Your task to perform on an android device: Open accessibility settings Image 0: 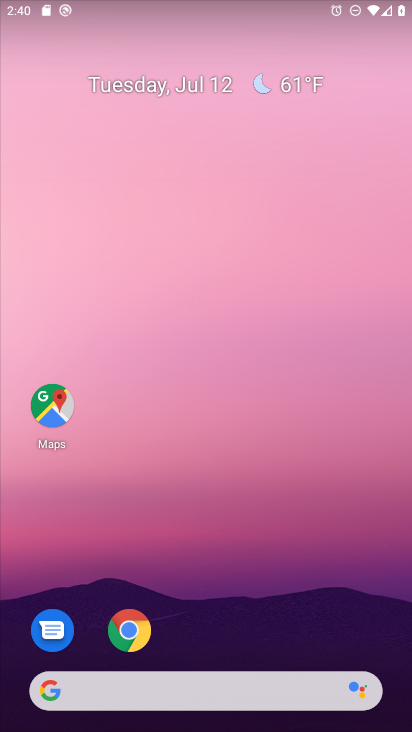
Step 0: drag from (189, 643) to (189, 112)
Your task to perform on an android device: Open accessibility settings Image 1: 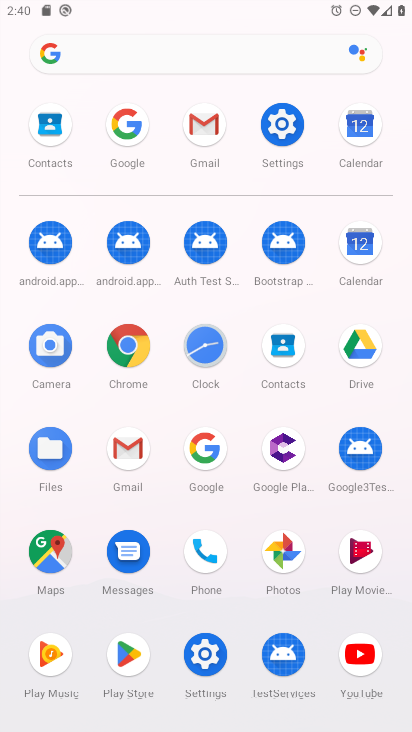
Step 1: click (262, 127)
Your task to perform on an android device: Open accessibility settings Image 2: 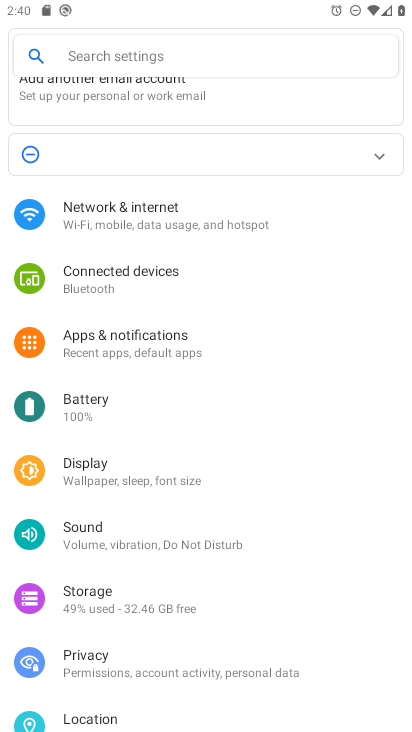
Step 2: drag from (178, 682) to (243, 290)
Your task to perform on an android device: Open accessibility settings Image 3: 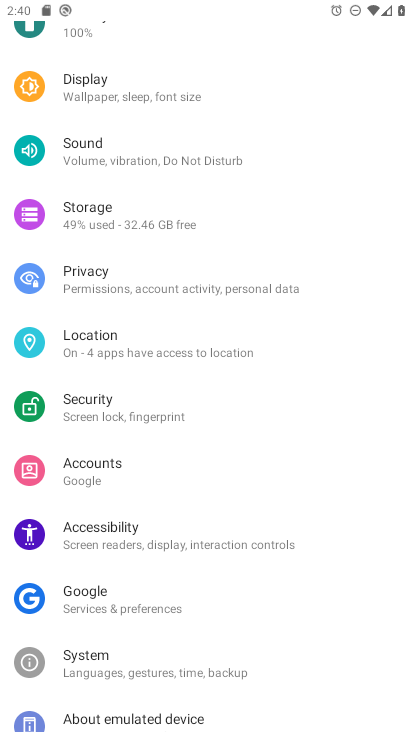
Step 3: drag from (162, 676) to (228, 327)
Your task to perform on an android device: Open accessibility settings Image 4: 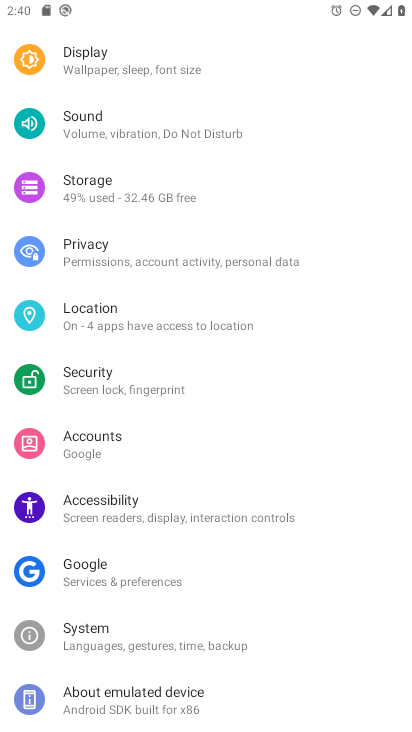
Step 4: click (146, 512)
Your task to perform on an android device: Open accessibility settings Image 5: 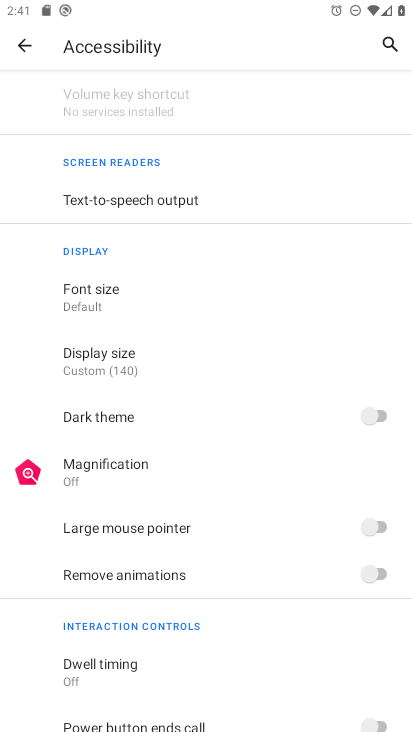
Step 5: task complete